Your task to perform on an android device: delete browsing data in the chrome app Image 0: 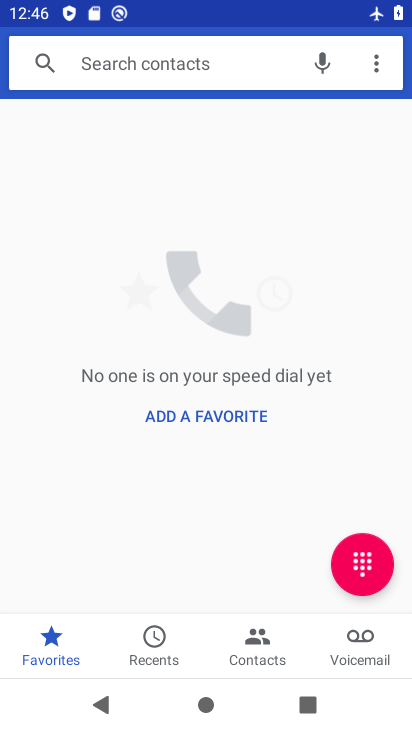
Step 0: press home button
Your task to perform on an android device: delete browsing data in the chrome app Image 1: 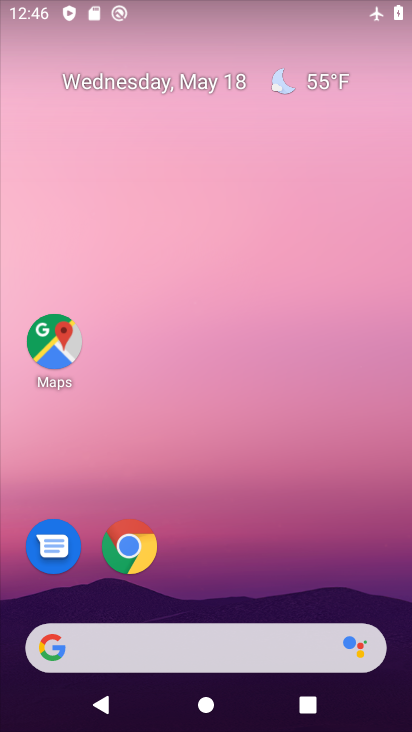
Step 1: drag from (380, 569) to (364, 180)
Your task to perform on an android device: delete browsing data in the chrome app Image 2: 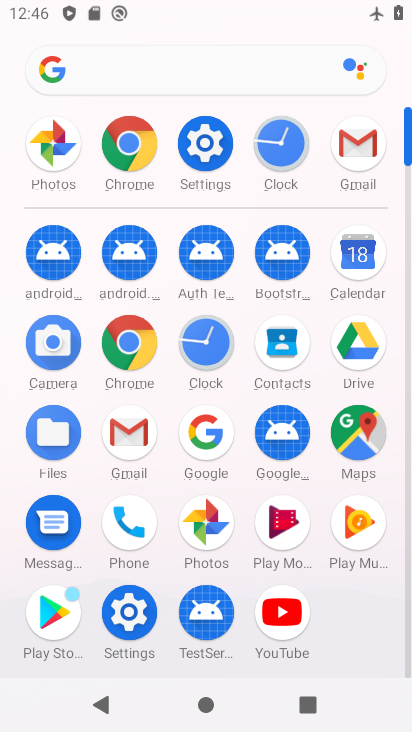
Step 2: click (120, 354)
Your task to perform on an android device: delete browsing data in the chrome app Image 3: 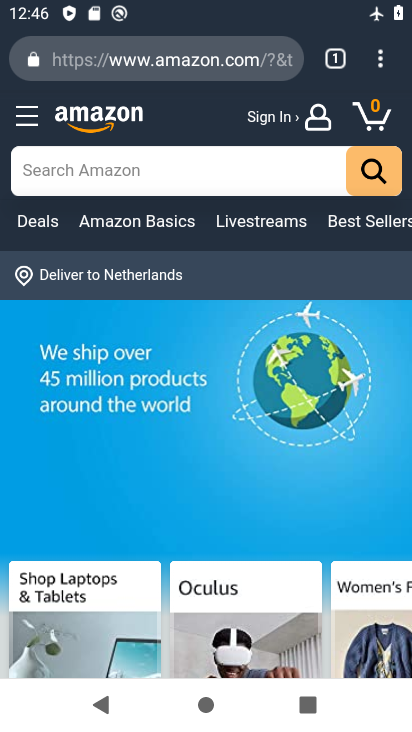
Step 3: drag from (378, 72) to (215, 323)
Your task to perform on an android device: delete browsing data in the chrome app Image 4: 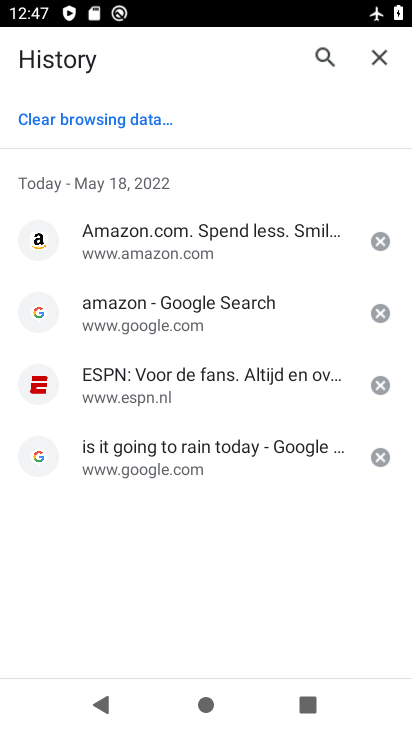
Step 4: click (133, 123)
Your task to perform on an android device: delete browsing data in the chrome app Image 5: 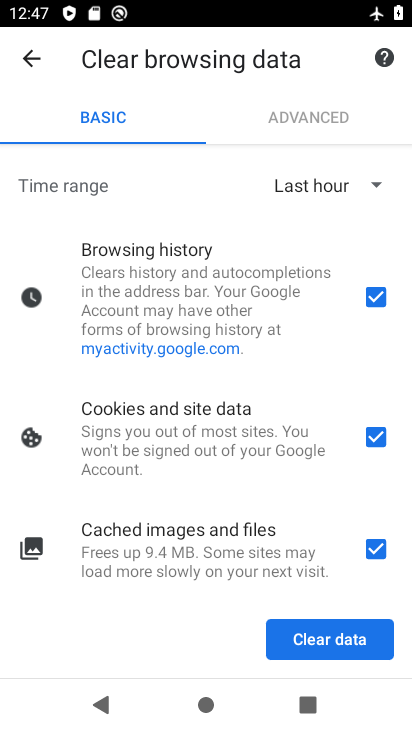
Step 5: click (322, 644)
Your task to perform on an android device: delete browsing data in the chrome app Image 6: 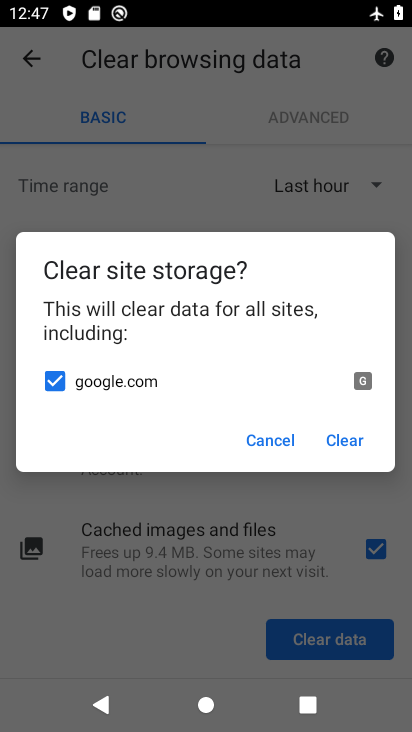
Step 6: click (363, 446)
Your task to perform on an android device: delete browsing data in the chrome app Image 7: 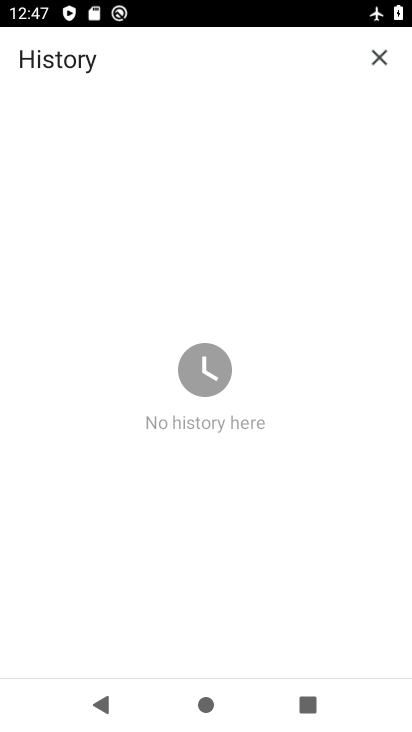
Step 7: task complete